Your task to perform on an android device: Go to settings Image 0: 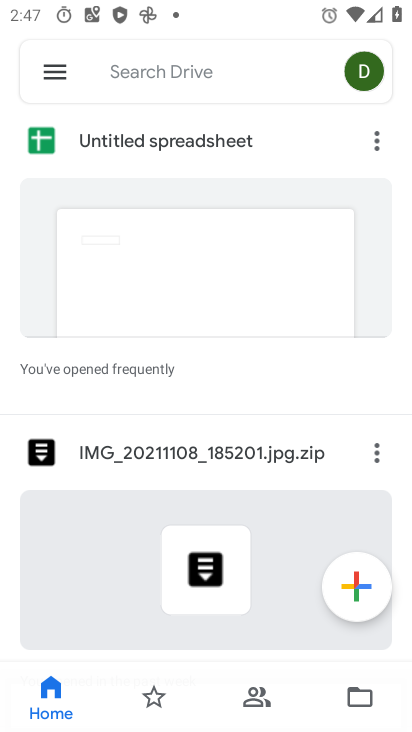
Step 0: press home button
Your task to perform on an android device: Go to settings Image 1: 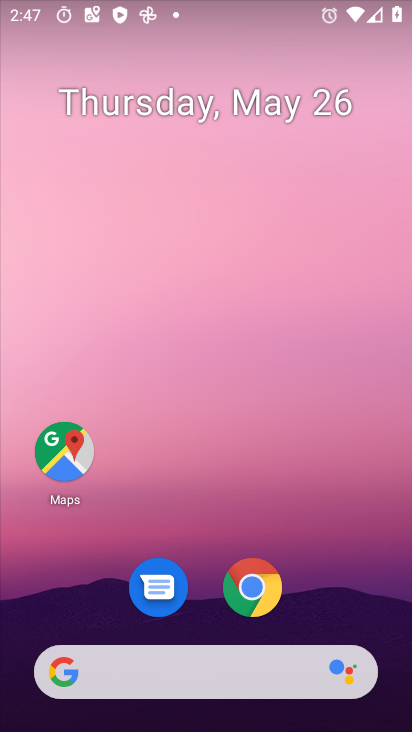
Step 1: drag from (345, 609) to (354, 168)
Your task to perform on an android device: Go to settings Image 2: 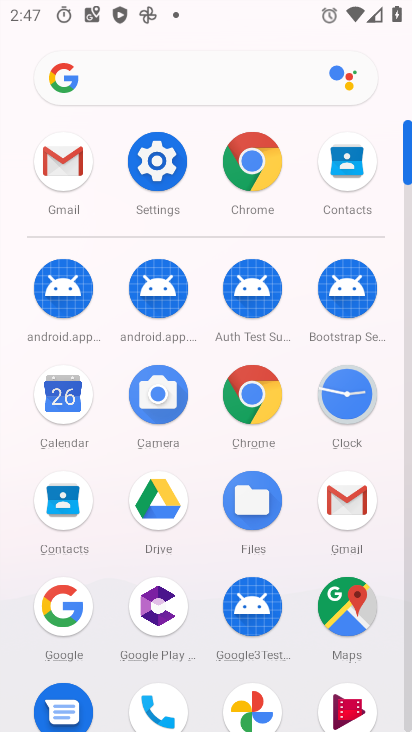
Step 2: click (158, 180)
Your task to perform on an android device: Go to settings Image 3: 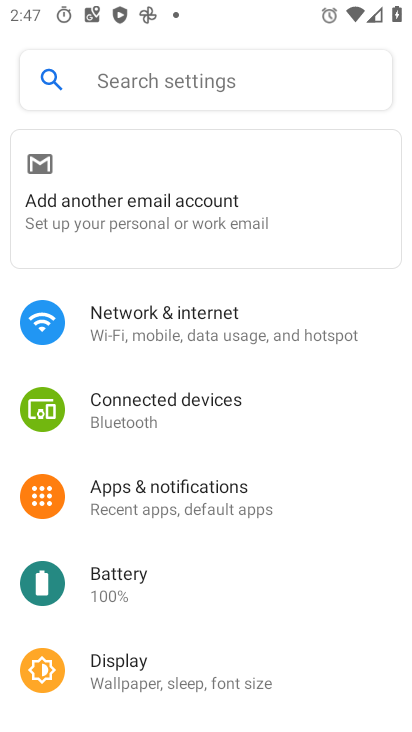
Step 3: task complete